Your task to perform on an android device: toggle translation in the chrome app Image 0: 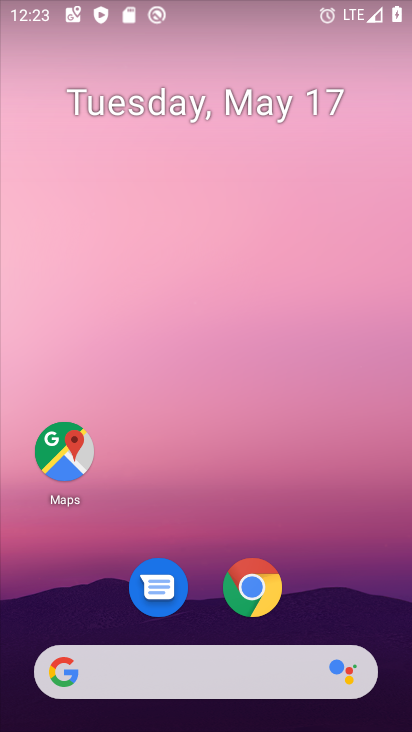
Step 0: drag from (387, 591) to (218, 153)
Your task to perform on an android device: toggle translation in the chrome app Image 1: 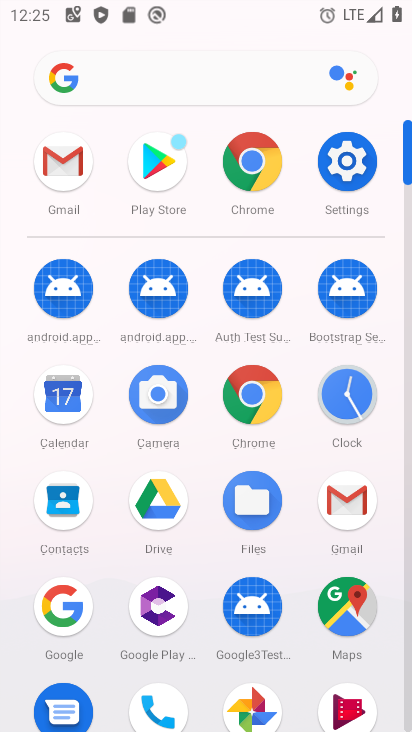
Step 1: click (272, 400)
Your task to perform on an android device: toggle translation in the chrome app Image 2: 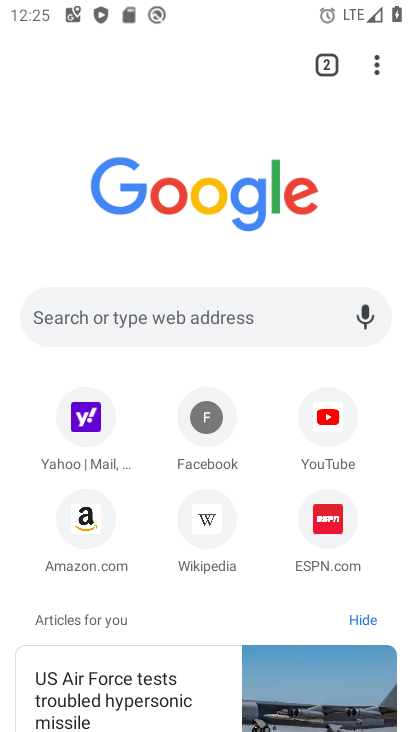
Step 2: click (367, 69)
Your task to perform on an android device: toggle translation in the chrome app Image 3: 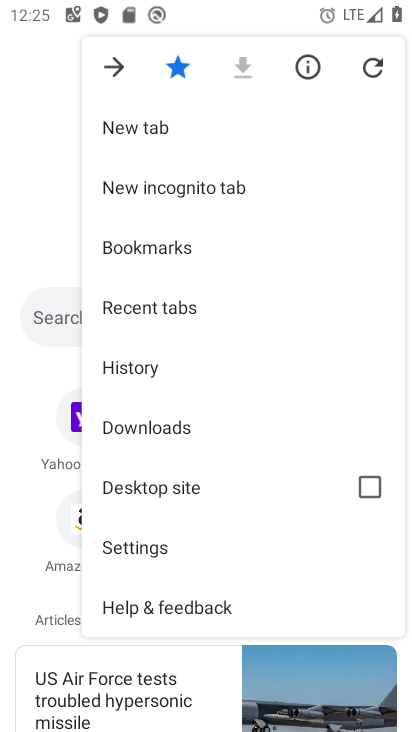
Step 3: click (150, 553)
Your task to perform on an android device: toggle translation in the chrome app Image 4: 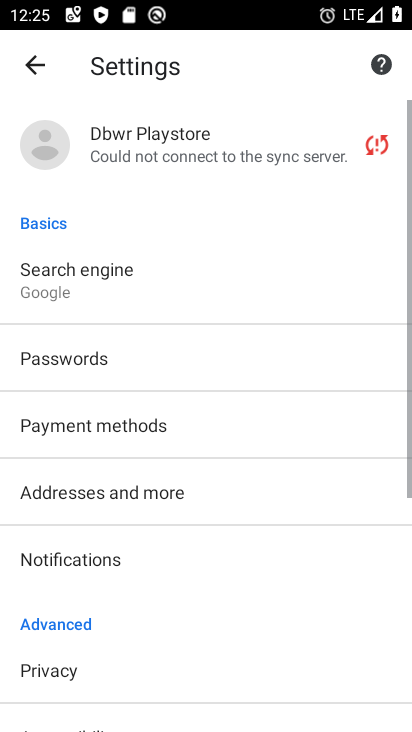
Step 4: drag from (157, 639) to (158, 140)
Your task to perform on an android device: toggle translation in the chrome app Image 5: 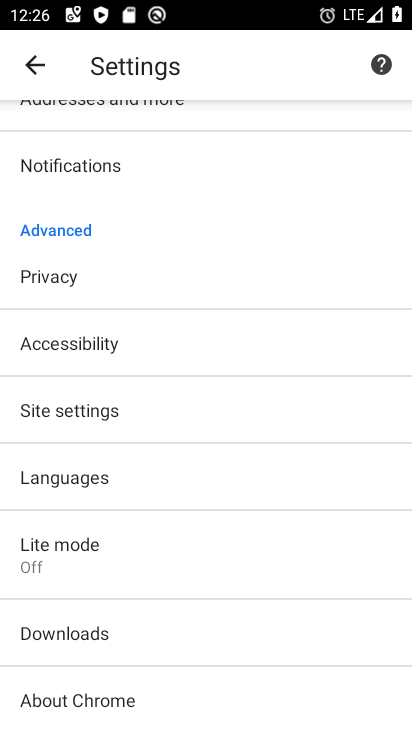
Step 5: click (148, 483)
Your task to perform on an android device: toggle translation in the chrome app Image 6: 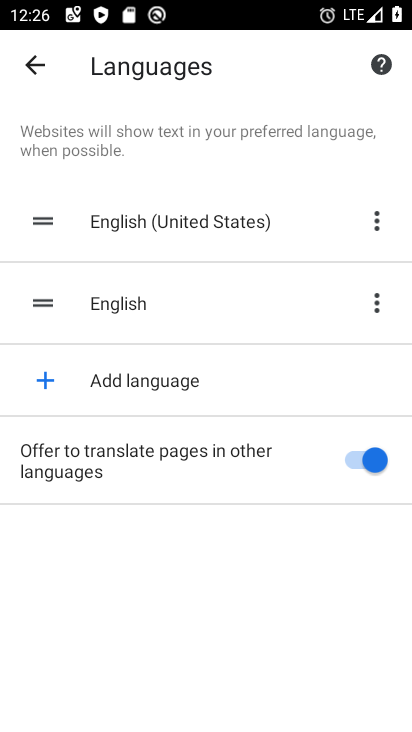
Step 6: click (338, 477)
Your task to perform on an android device: toggle translation in the chrome app Image 7: 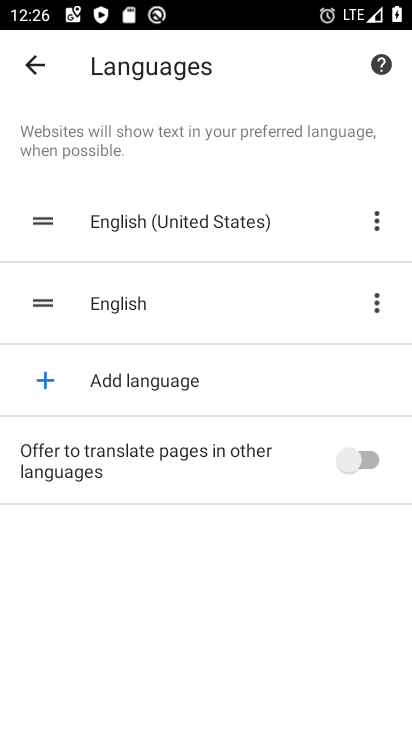
Step 7: task complete